Your task to perform on an android device: open a new tab in the chrome app Image 0: 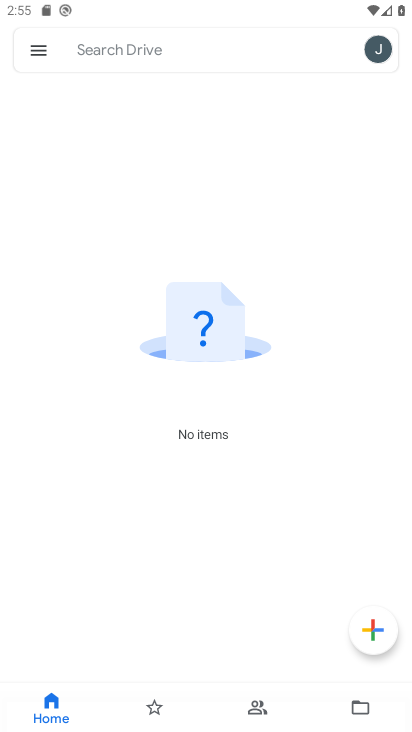
Step 0: press home button
Your task to perform on an android device: open a new tab in the chrome app Image 1: 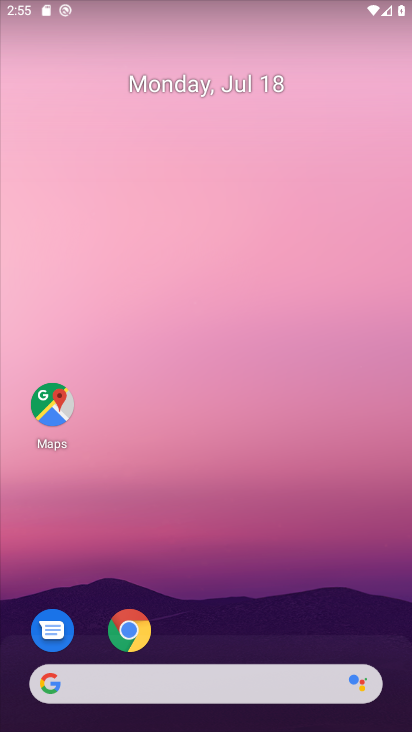
Step 1: drag from (399, 647) to (303, 187)
Your task to perform on an android device: open a new tab in the chrome app Image 2: 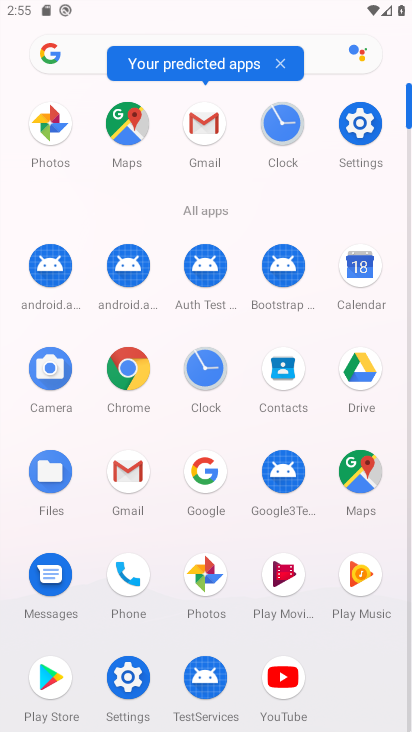
Step 2: click (134, 371)
Your task to perform on an android device: open a new tab in the chrome app Image 3: 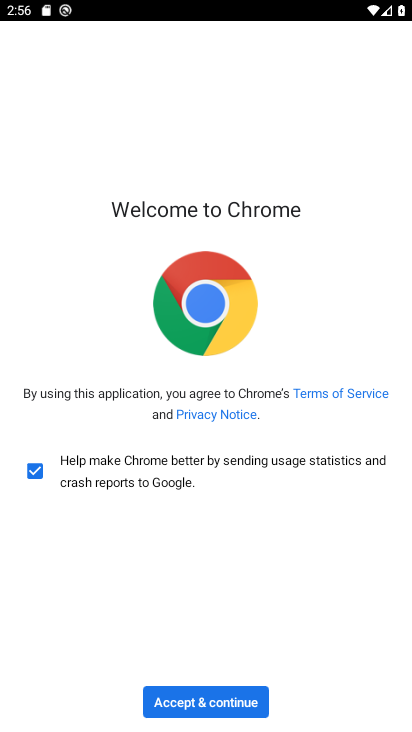
Step 3: click (192, 703)
Your task to perform on an android device: open a new tab in the chrome app Image 4: 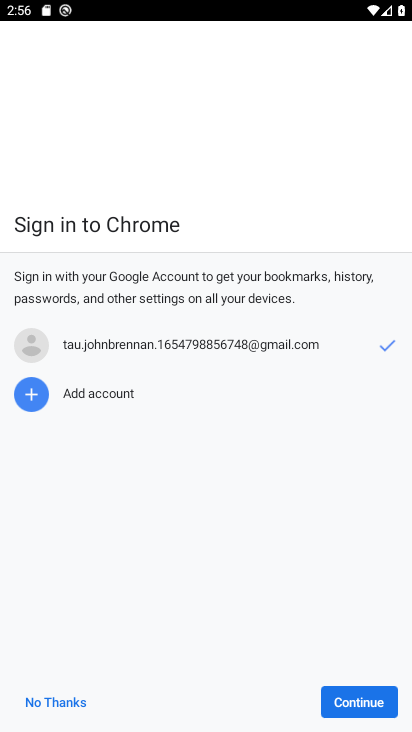
Step 4: click (352, 707)
Your task to perform on an android device: open a new tab in the chrome app Image 5: 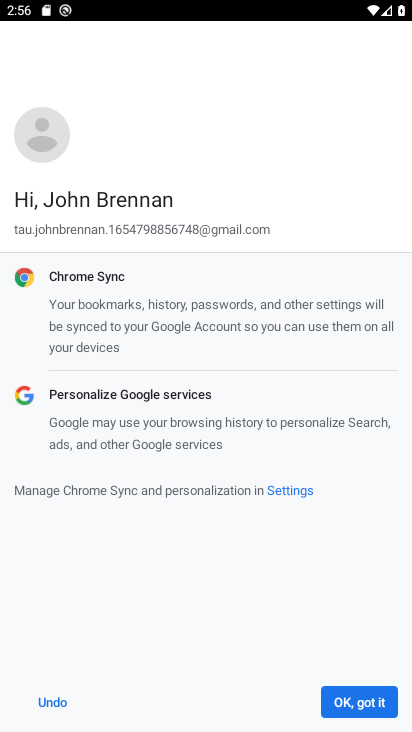
Step 5: click (373, 708)
Your task to perform on an android device: open a new tab in the chrome app Image 6: 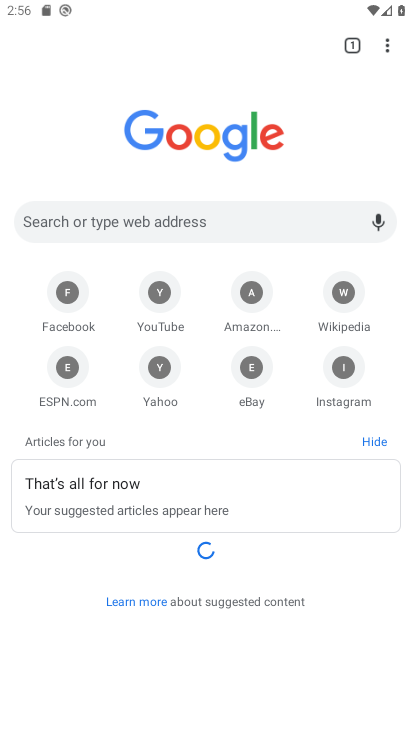
Step 6: click (388, 40)
Your task to perform on an android device: open a new tab in the chrome app Image 7: 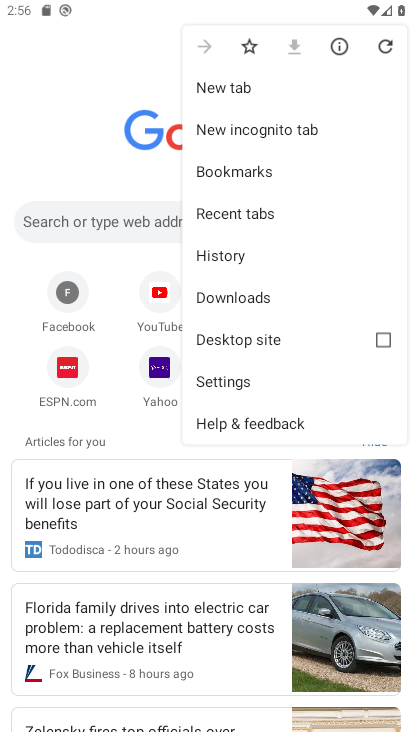
Step 7: click (306, 88)
Your task to perform on an android device: open a new tab in the chrome app Image 8: 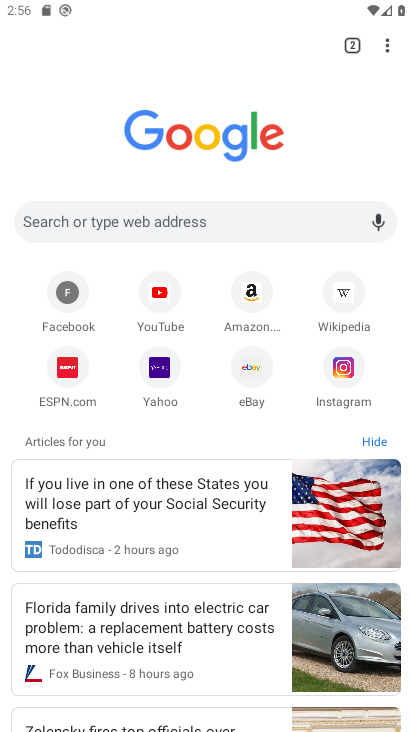
Step 8: task complete